Your task to perform on an android device: When is my next meeting? Image 0: 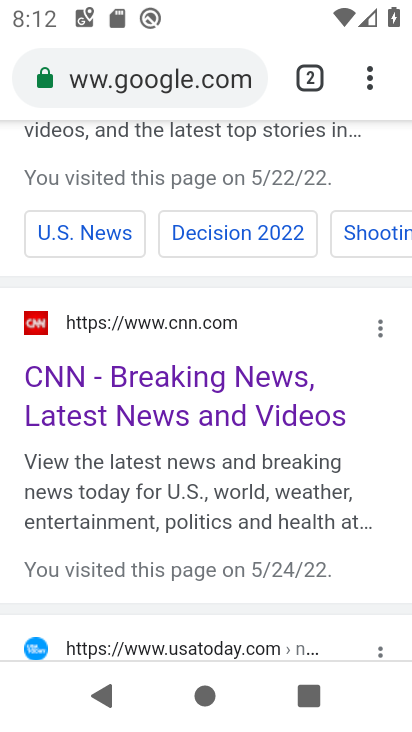
Step 0: press home button
Your task to perform on an android device: When is my next meeting? Image 1: 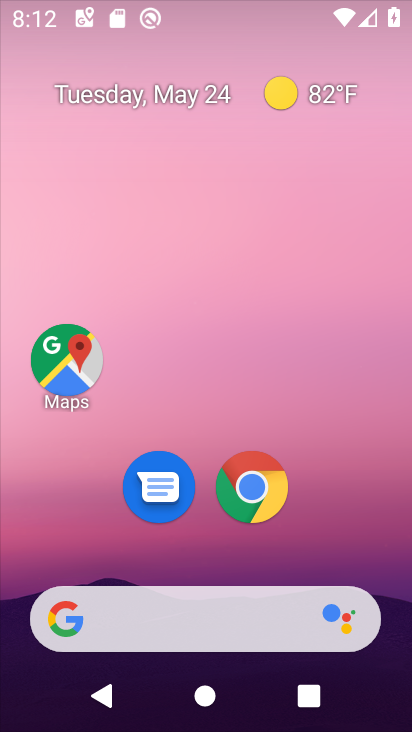
Step 1: drag from (328, 537) to (320, 226)
Your task to perform on an android device: When is my next meeting? Image 2: 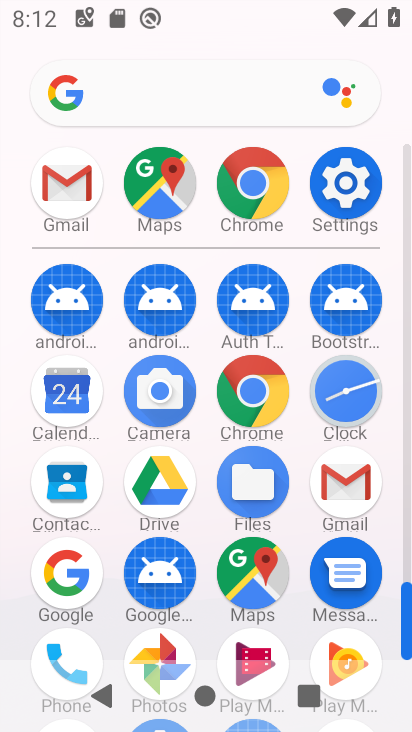
Step 2: click (68, 402)
Your task to perform on an android device: When is my next meeting? Image 3: 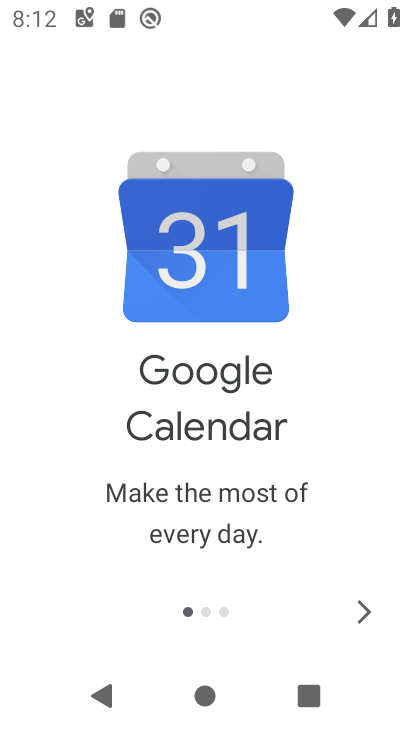
Step 3: click (367, 624)
Your task to perform on an android device: When is my next meeting? Image 4: 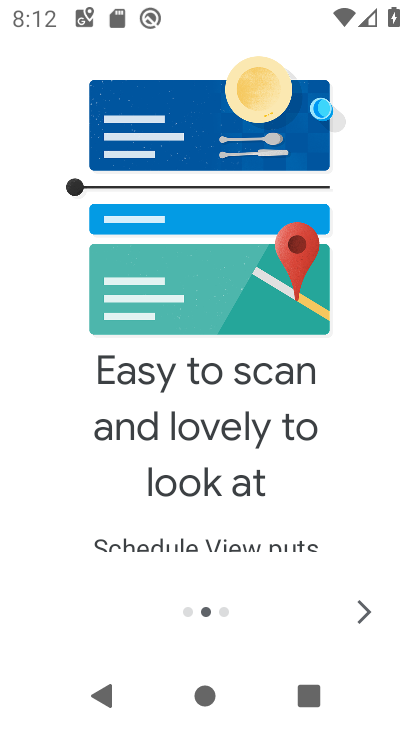
Step 4: click (367, 620)
Your task to perform on an android device: When is my next meeting? Image 5: 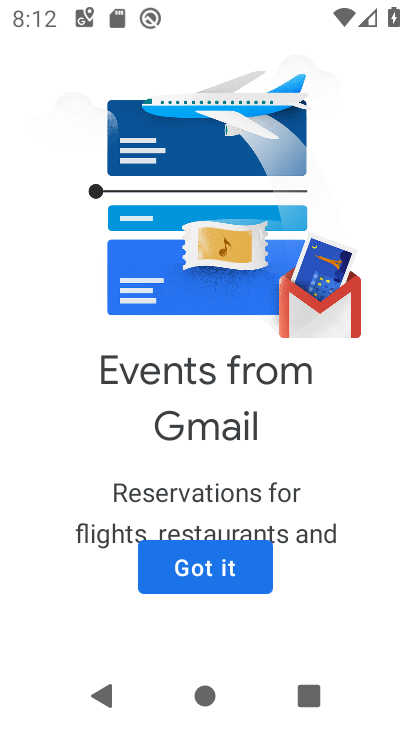
Step 5: click (243, 569)
Your task to perform on an android device: When is my next meeting? Image 6: 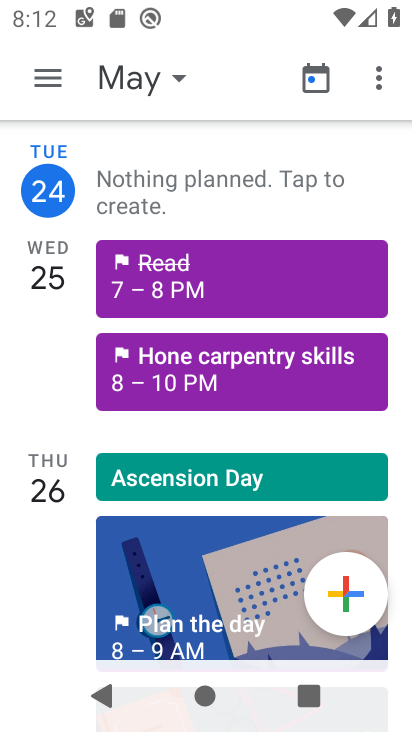
Step 6: click (130, 81)
Your task to perform on an android device: When is my next meeting? Image 7: 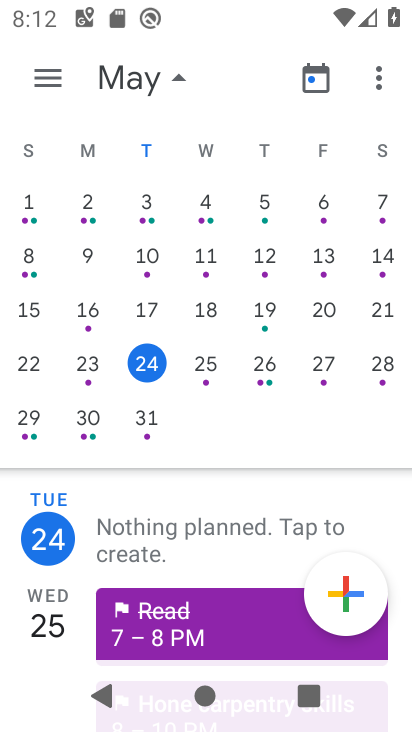
Step 7: drag from (189, 536) to (190, 273)
Your task to perform on an android device: When is my next meeting? Image 8: 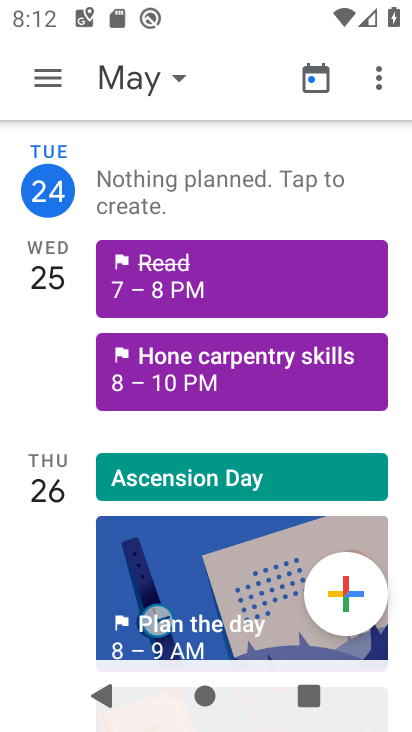
Step 8: drag from (176, 598) to (183, 200)
Your task to perform on an android device: When is my next meeting? Image 9: 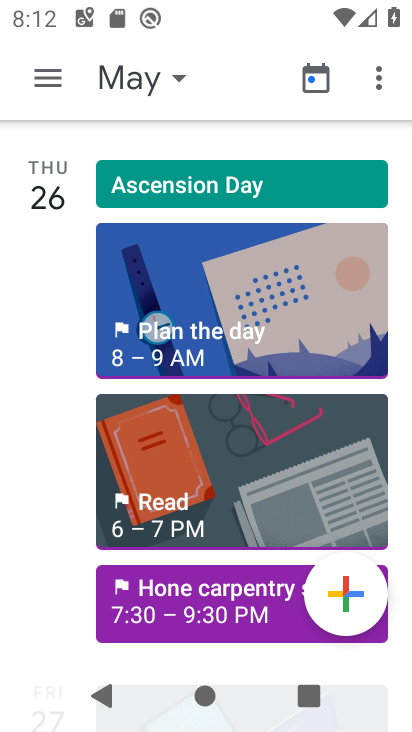
Step 9: drag from (142, 631) to (228, 253)
Your task to perform on an android device: When is my next meeting? Image 10: 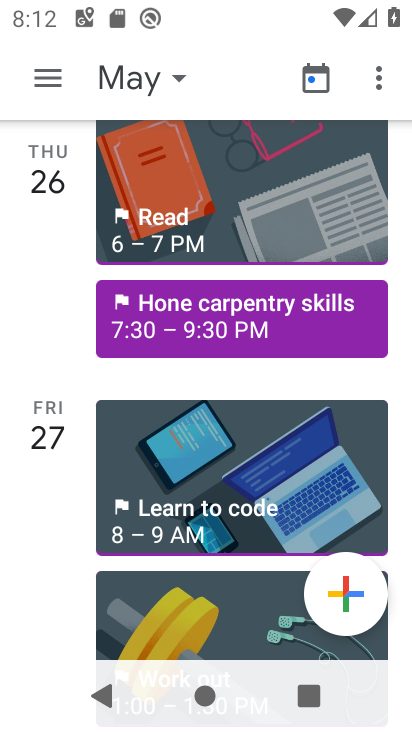
Step 10: drag from (188, 552) to (229, 146)
Your task to perform on an android device: When is my next meeting? Image 11: 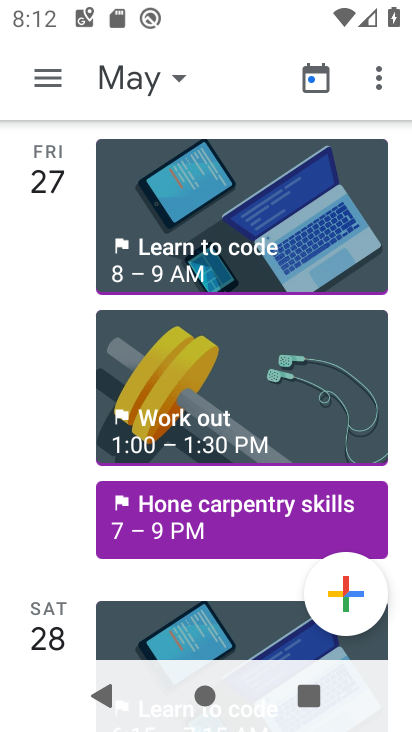
Step 11: drag from (185, 583) to (228, 206)
Your task to perform on an android device: When is my next meeting? Image 12: 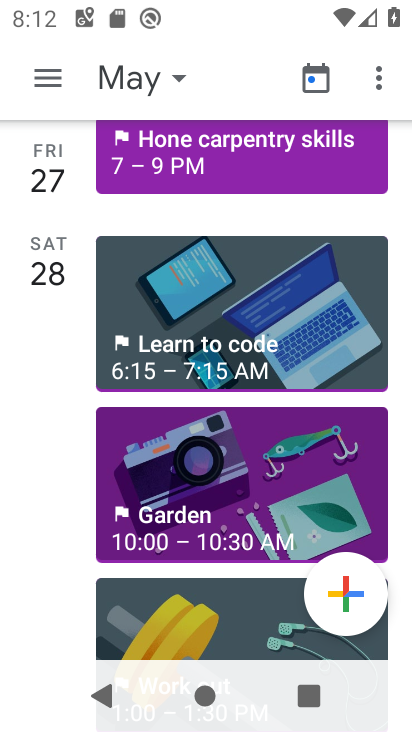
Step 12: drag from (200, 613) to (265, 135)
Your task to perform on an android device: When is my next meeting? Image 13: 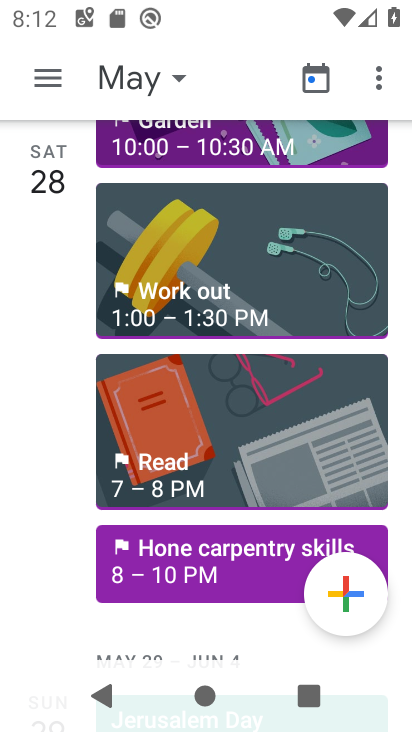
Step 13: drag from (181, 558) to (256, 161)
Your task to perform on an android device: When is my next meeting? Image 14: 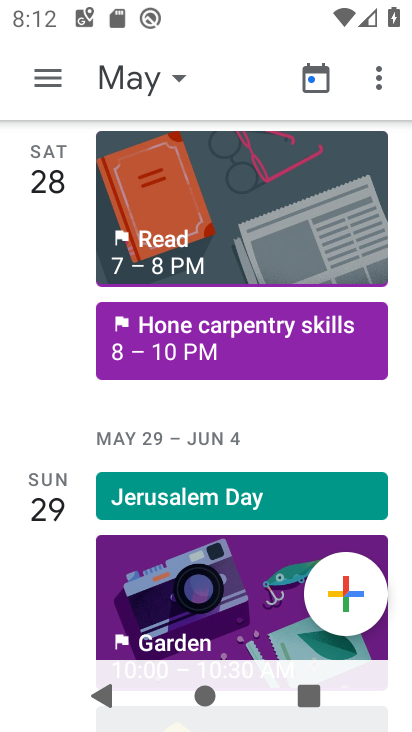
Step 14: drag from (164, 584) to (233, 196)
Your task to perform on an android device: When is my next meeting? Image 15: 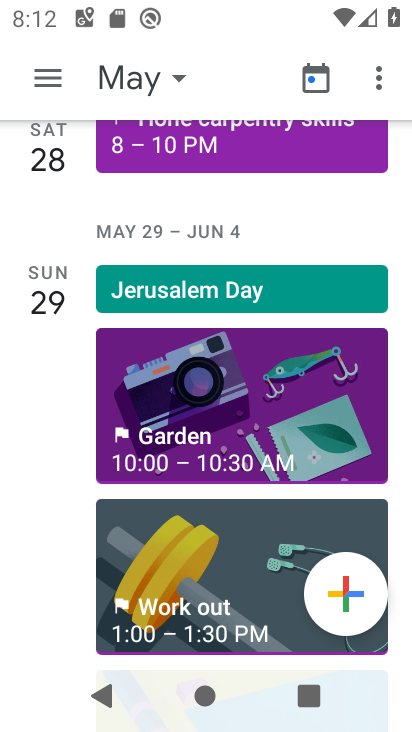
Step 15: drag from (155, 585) to (240, 190)
Your task to perform on an android device: When is my next meeting? Image 16: 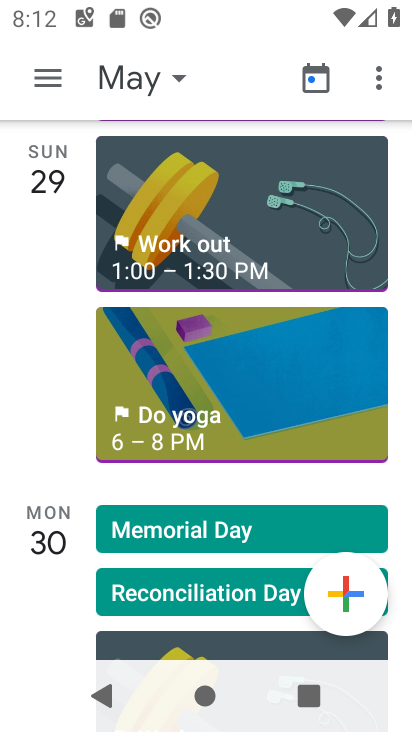
Step 16: drag from (147, 558) to (332, 136)
Your task to perform on an android device: When is my next meeting? Image 17: 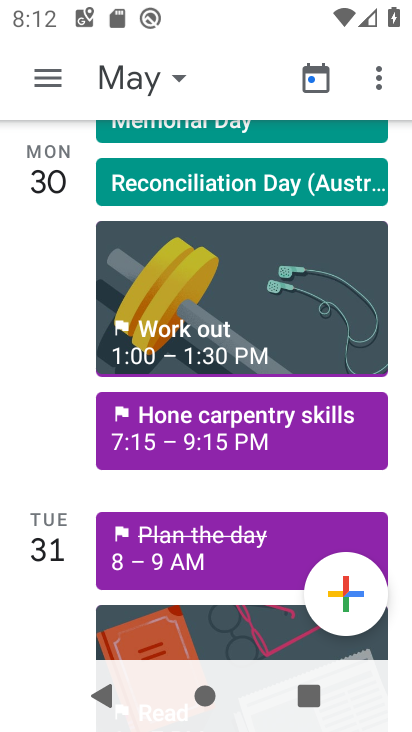
Step 17: drag from (161, 510) to (268, 132)
Your task to perform on an android device: When is my next meeting? Image 18: 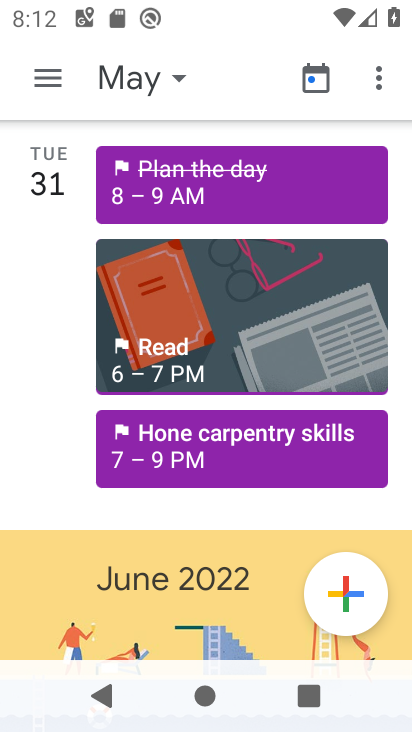
Step 18: drag from (182, 565) to (284, 165)
Your task to perform on an android device: When is my next meeting? Image 19: 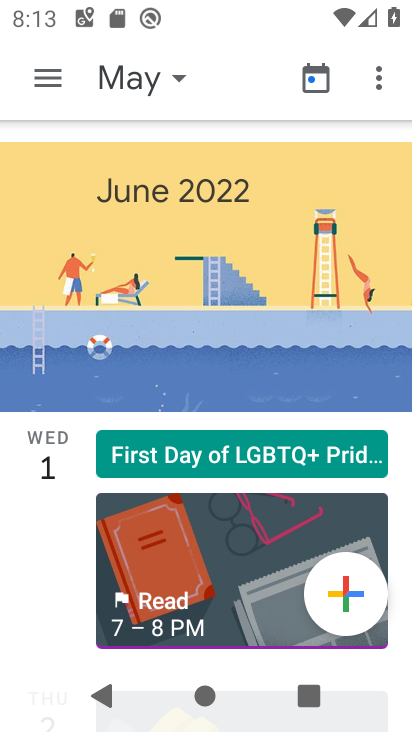
Step 19: drag from (178, 598) to (252, 203)
Your task to perform on an android device: When is my next meeting? Image 20: 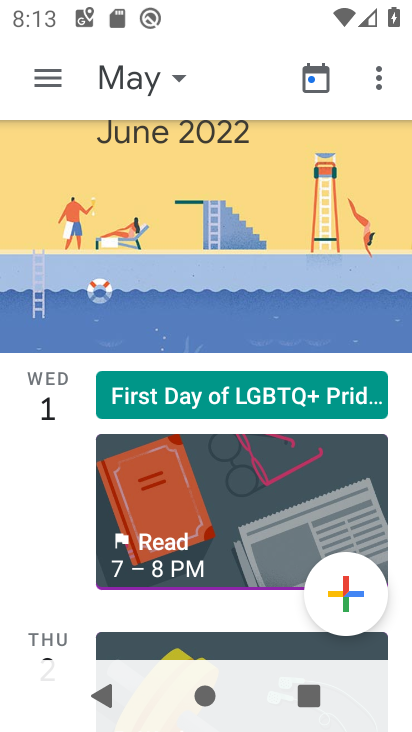
Step 20: drag from (161, 596) to (233, 199)
Your task to perform on an android device: When is my next meeting? Image 21: 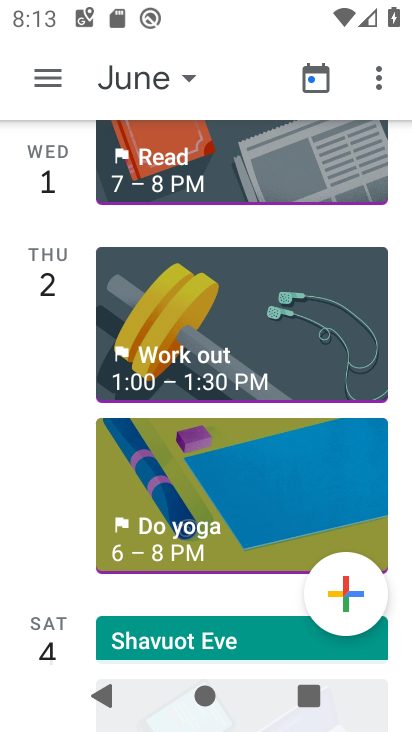
Step 21: drag from (117, 616) to (250, 206)
Your task to perform on an android device: When is my next meeting? Image 22: 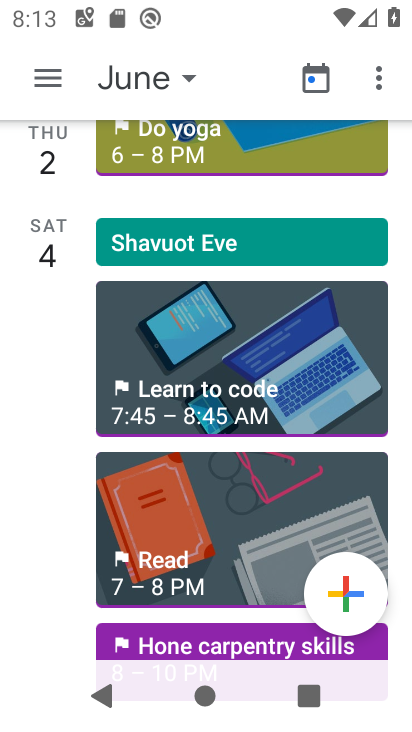
Step 22: drag from (160, 617) to (262, 193)
Your task to perform on an android device: When is my next meeting? Image 23: 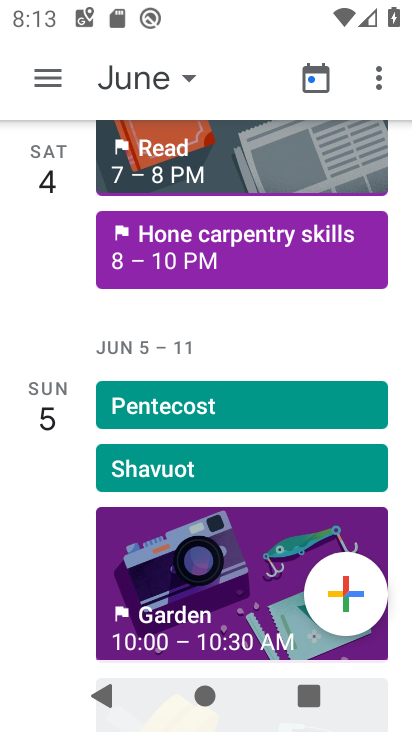
Step 23: drag from (124, 549) to (267, 189)
Your task to perform on an android device: When is my next meeting? Image 24: 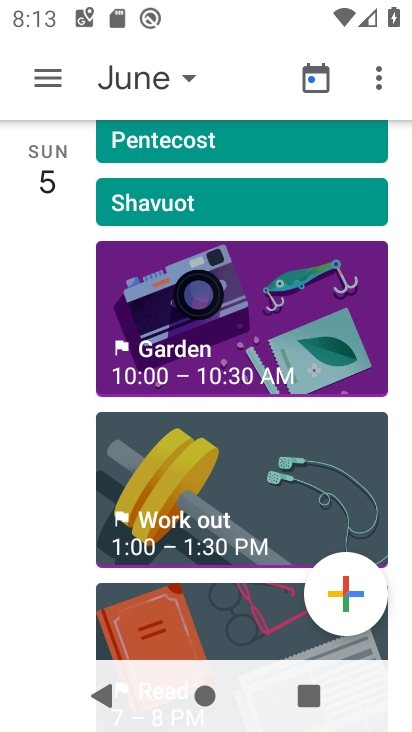
Step 24: drag from (153, 566) to (236, 237)
Your task to perform on an android device: When is my next meeting? Image 25: 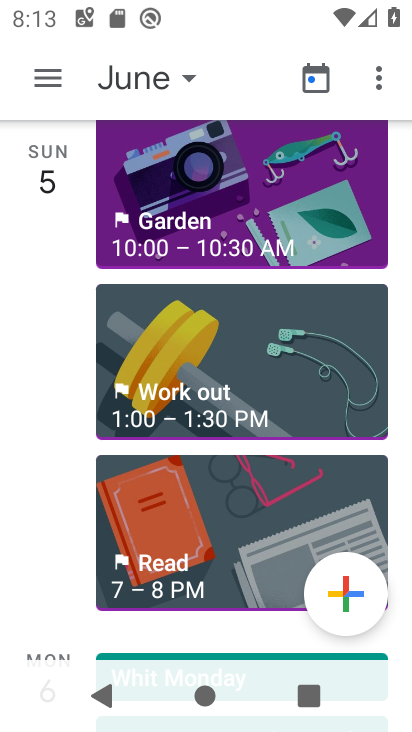
Step 25: drag from (143, 550) to (281, 151)
Your task to perform on an android device: When is my next meeting? Image 26: 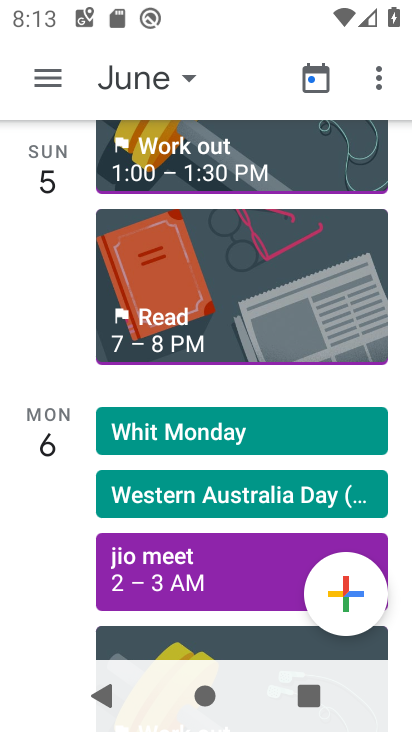
Step 26: drag from (188, 523) to (299, 137)
Your task to perform on an android device: When is my next meeting? Image 27: 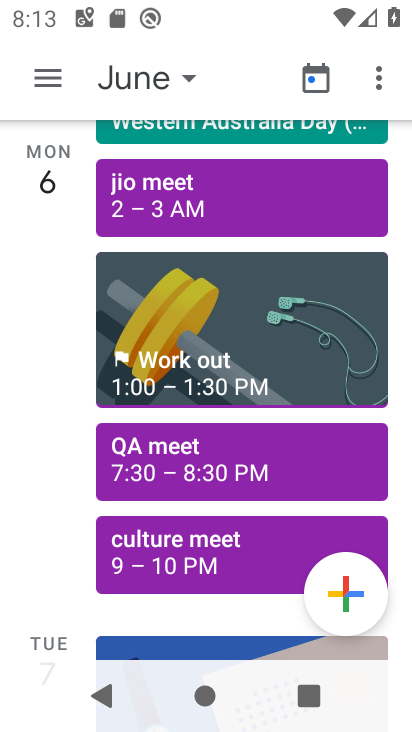
Step 27: click (205, 487)
Your task to perform on an android device: When is my next meeting? Image 28: 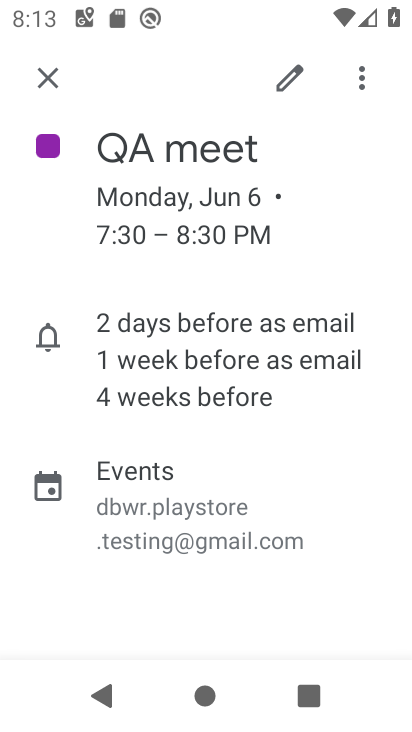
Step 28: task complete